Your task to perform on an android device: open app "Walmart Shopping & Grocery" (install if not already installed) and enter user name: "Hans@icloud.com" and password: "executing" Image 0: 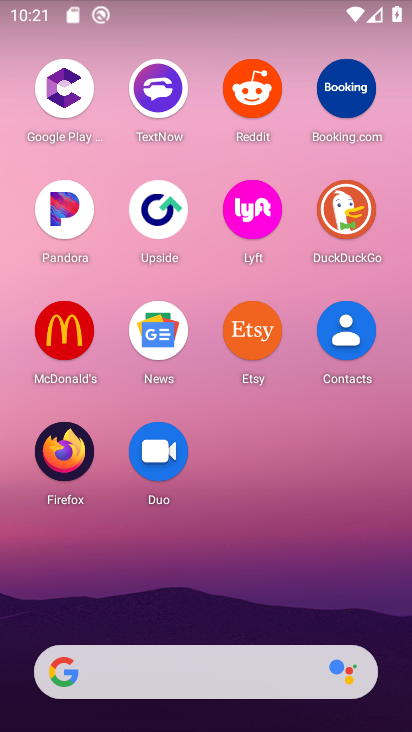
Step 0: drag from (207, 421) to (261, 161)
Your task to perform on an android device: open app "Walmart Shopping & Grocery" (install if not already installed) and enter user name: "Hans@icloud.com" and password: "executing" Image 1: 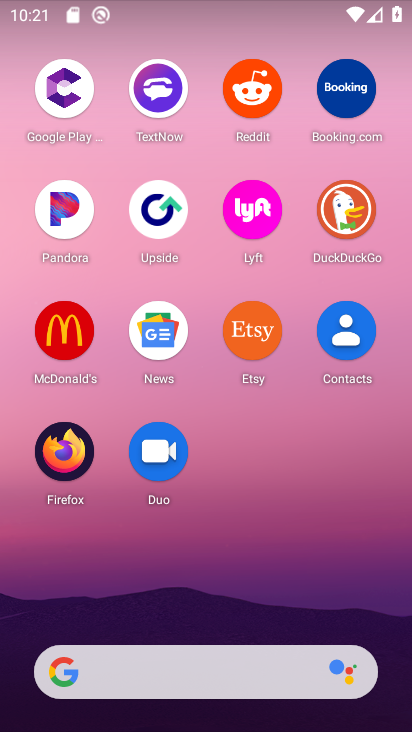
Step 1: drag from (196, 570) to (210, 65)
Your task to perform on an android device: open app "Walmart Shopping & Grocery" (install if not already installed) and enter user name: "Hans@icloud.com" and password: "executing" Image 2: 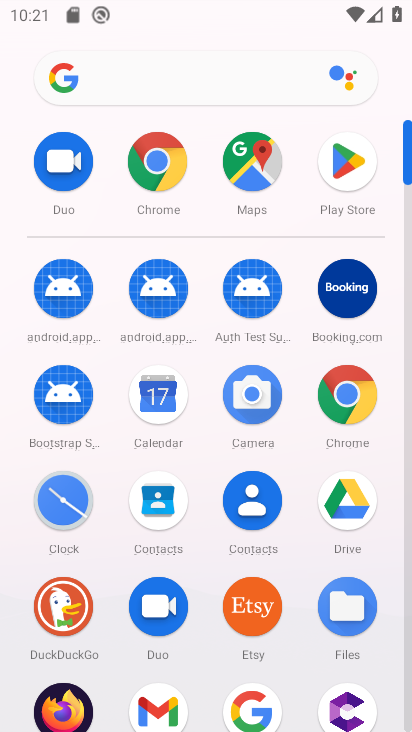
Step 2: click (338, 177)
Your task to perform on an android device: open app "Walmart Shopping & Grocery" (install if not already installed) and enter user name: "Hans@icloud.com" and password: "executing" Image 3: 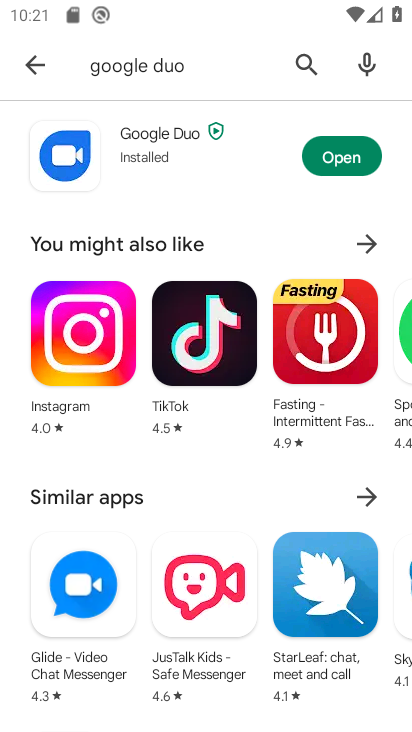
Step 3: click (31, 71)
Your task to perform on an android device: open app "Walmart Shopping & Grocery" (install if not already installed) and enter user name: "Hans@icloud.com" and password: "executing" Image 4: 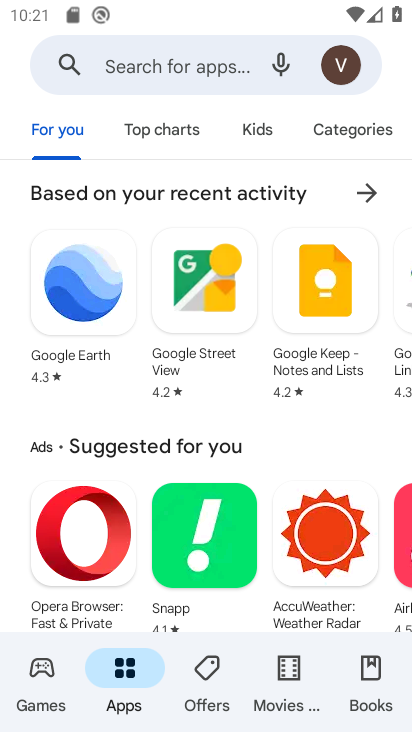
Step 4: click (214, 61)
Your task to perform on an android device: open app "Walmart Shopping & Grocery" (install if not already installed) and enter user name: "Hans@icloud.com" and password: "executing" Image 5: 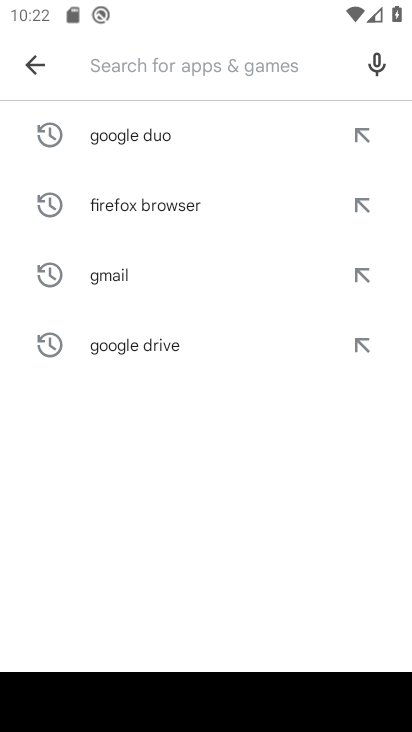
Step 5: type "Walmart Shopping & Grocery"
Your task to perform on an android device: open app "Walmart Shopping & Grocery" (install if not already installed) and enter user name: "Hans@icloud.com" and password: "executing" Image 6: 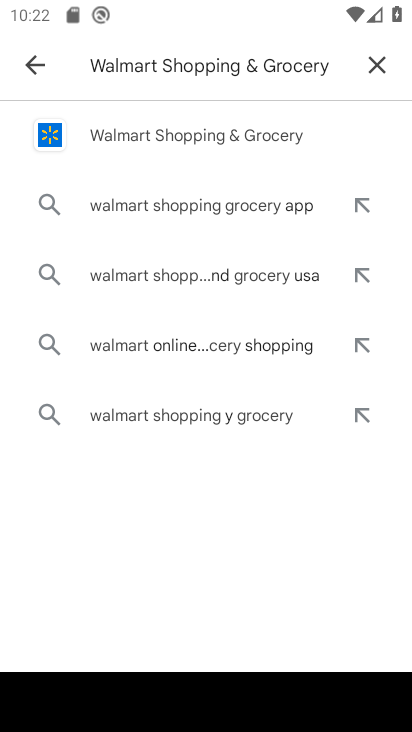
Step 6: click (219, 134)
Your task to perform on an android device: open app "Walmart Shopping & Grocery" (install if not already installed) and enter user name: "Hans@icloud.com" and password: "executing" Image 7: 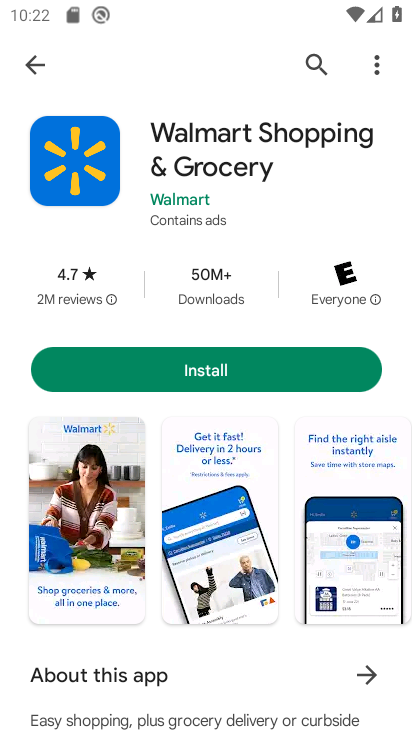
Step 7: click (169, 349)
Your task to perform on an android device: open app "Walmart Shopping & Grocery" (install if not already installed) and enter user name: "Hans@icloud.com" and password: "executing" Image 8: 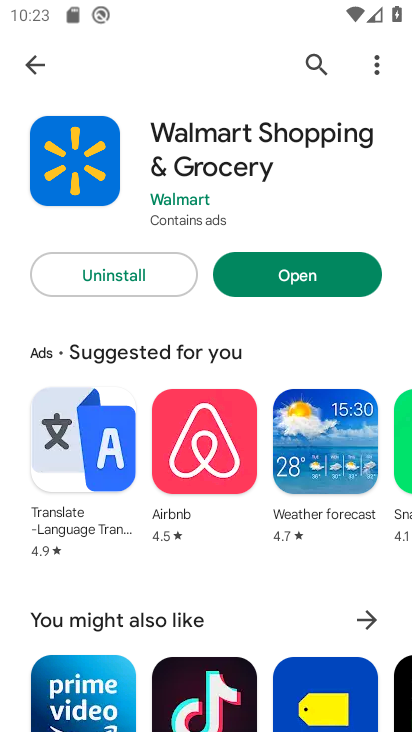
Step 8: click (309, 284)
Your task to perform on an android device: open app "Walmart Shopping & Grocery" (install if not already installed) and enter user name: "Hans@icloud.com" and password: "executing" Image 9: 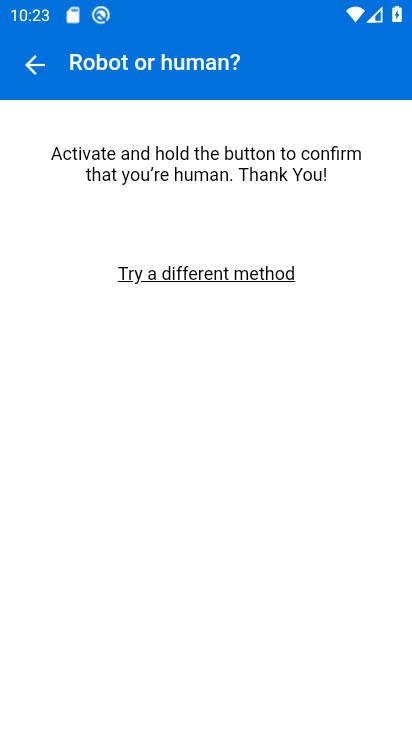
Step 9: click (174, 654)
Your task to perform on an android device: open app "Walmart Shopping & Grocery" (install if not already installed) and enter user name: "Hans@icloud.com" and password: "executing" Image 10: 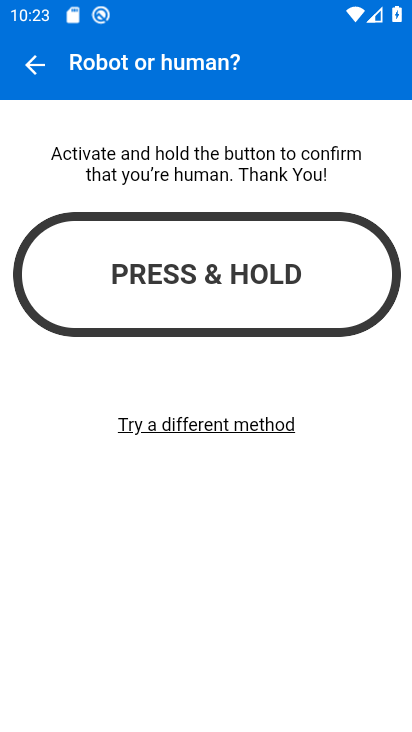
Step 10: click (35, 68)
Your task to perform on an android device: open app "Walmart Shopping & Grocery" (install if not already installed) and enter user name: "Hans@icloud.com" and password: "executing" Image 11: 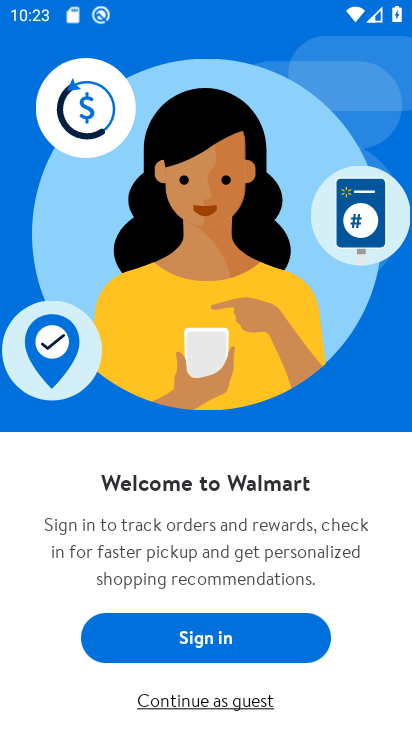
Step 11: click (246, 626)
Your task to perform on an android device: open app "Walmart Shopping & Grocery" (install if not already installed) and enter user name: "Hans@icloud.com" and password: "executing" Image 12: 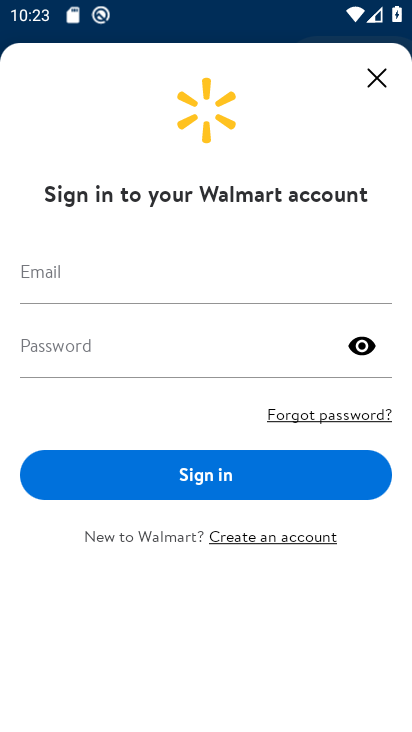
Step 12: click (102, 284)
Your task to perform on an android device: open app "Walmart Shopping & Grocery" (install if not already installed) and enter user name: "Hans@icloud.com" and password: "executing" Image 13: 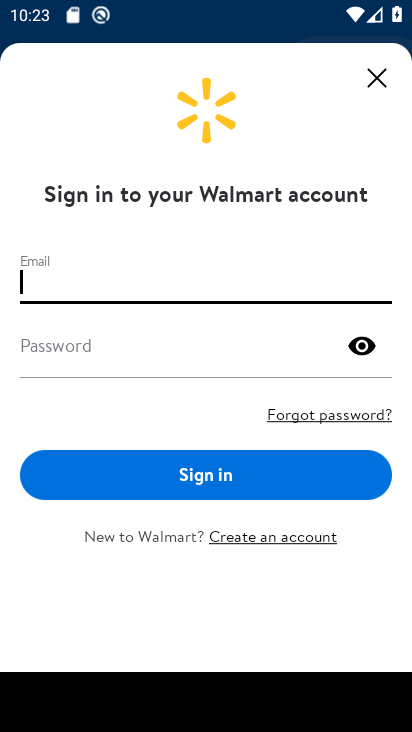
Step 13: type "Hans@icloud.com"
Your task to perform on an android device: open app "Walmart Shopping & Grocery" (install if not already installed) and enter user name: "Hans@icloud.com" and password: "executing" Image 14: 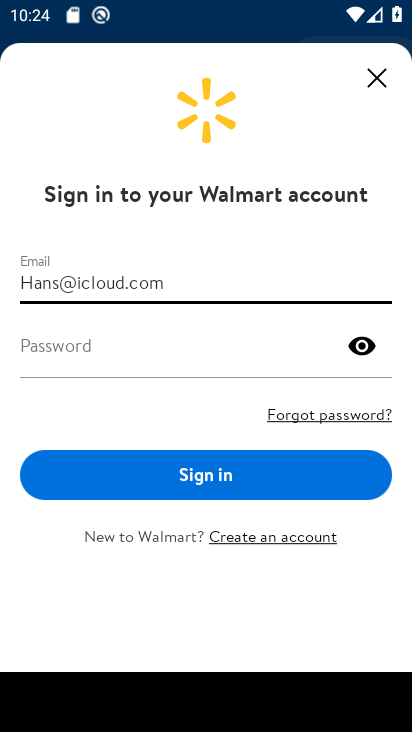
Step 14: click (103, 337)
Your task to perform on an android device: open app "Walmart Shopping & Grocery" (install if not already installed) and enter user name: "Hans@icloud.com" and password: "executing" Image 15: 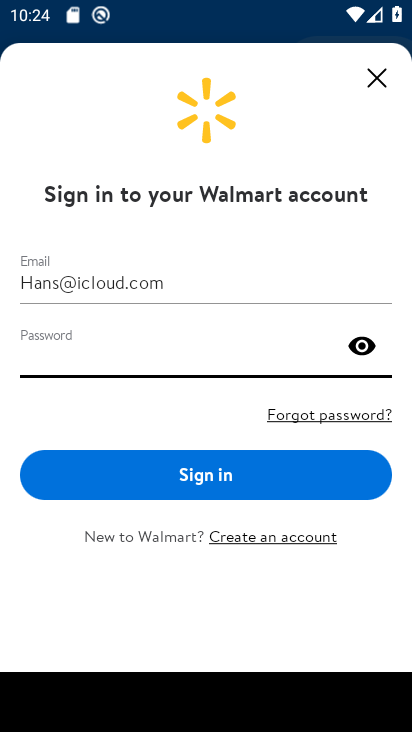
Step 15: type "executing"
Your task to perform on an android device: open app "Walmart Shopping & Grocery" (install if not already installed) and enter user name: "Hans@icloud.com" and password: "executing" Image 16: 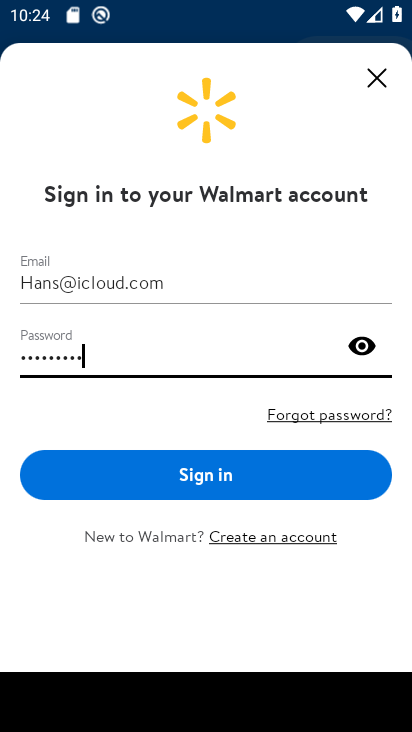
Step 16: click (213, 483)
Your task to perform on an android device: open app "Walmart Shopping & Grocery" (install if not already installed) and enter user name: "Hans@icloud.com" and password: "executing" Image 17: 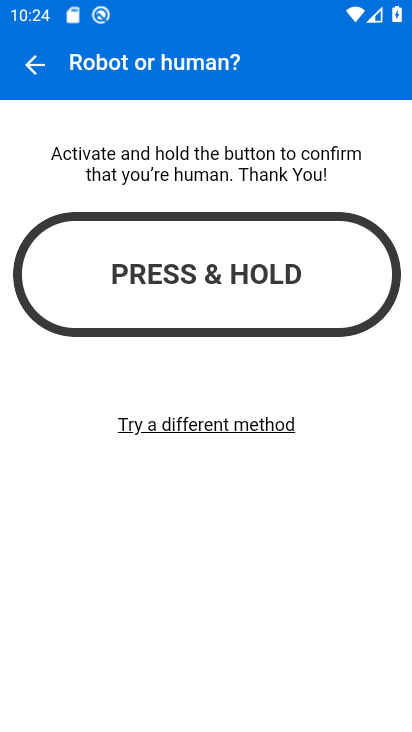
Step 17: task complete